Your task to perform on an android device: Search for "macbook" on target, select the first entry, and add it to the cart. Image 0: 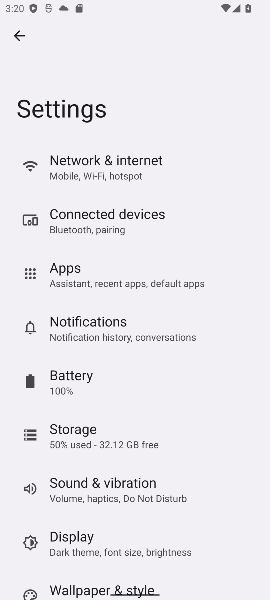
Step 0: press home button
Your task to perform on an android device: Search for "macbook" on target, select the first entry, and add it to the cart. Image 1: 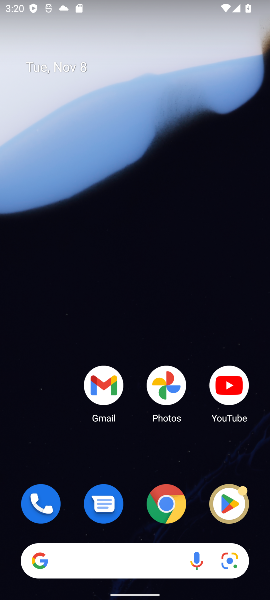
Step 1: drag from (195, 460) to (218, 54)
Your task to perform on an android device: Search for "macbook" on target, select the first entry, and add it to the cart. Image 2: 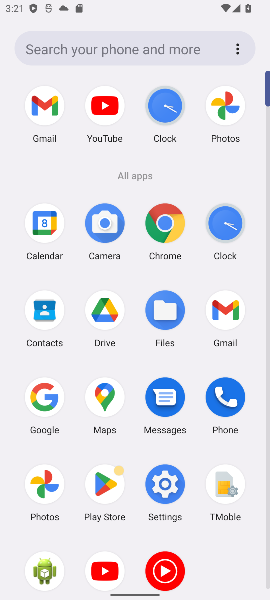
Step 2: click (159, 229)
Your task to perform on an android device: Search for "macbook" on target, select the first entry, and add it to the cart. Image 3: 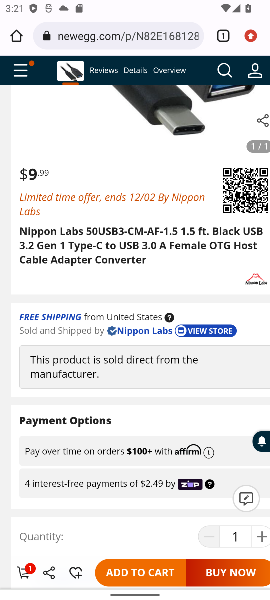
Step 3: click (133, 39)
Your task to perform on an android device: Search for "macbook" on target, select the first entry, and add it to the cart. Image 4: 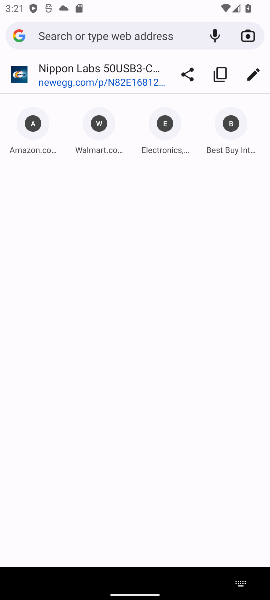
Step 4: type "macbook"
Your task to perform on an android device: Search for "macbook" on target, select the first entry, and add it to the cart. Image 5: 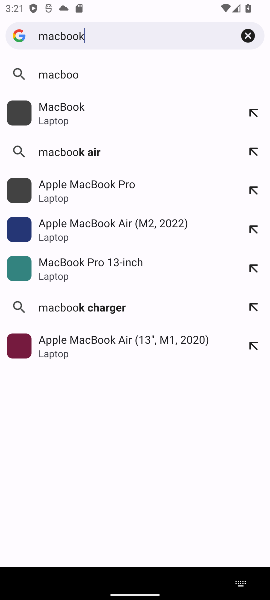
Step 5: press enter
Your task to perform on an android device: Search for "macbook" on target, select the first entry, and add it to the cart. Image 6: 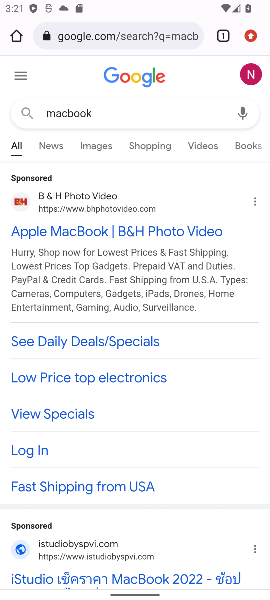
Step 6: click (146, 41)
Your task to perform on an android device: Search for "macbook" on target, select the first entry, and add it to the cart. Image 7: 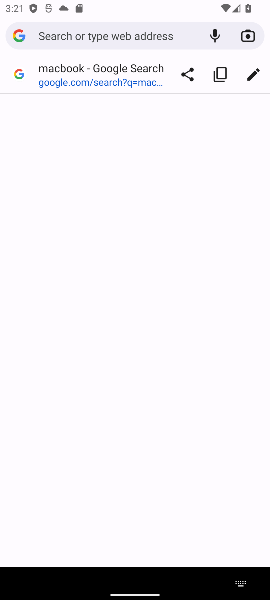
Step 7: type "target"
Your task to perform on an android device: Search for "macbook" on target, select the first entry, and add it to the cart. Image 8: 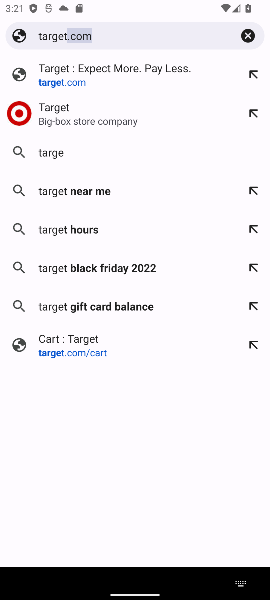
Step 8: press enter
Your task to perform on an android device: Search for "macbook" on target, select the first entry, and add it to the cart. Image 9: 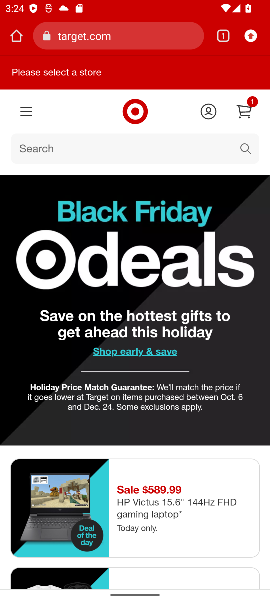
Step 9: click (103, 146)
Your task to perform on an android device: Search for "macbook" on target, select the first entry, and add it to the cart. Image 10: 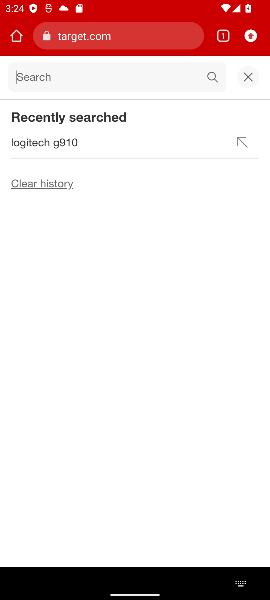
Step 10: type "macbook"
Your task to perform on an android device: Search for "macbook" on target, select the first entry, and add it to the cart. Image 11: 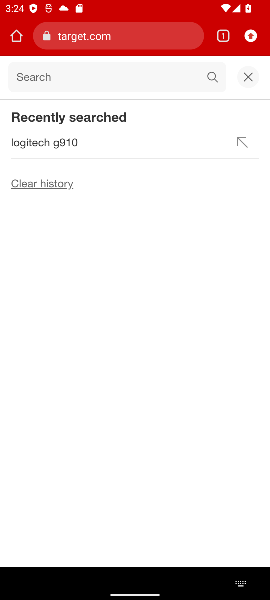
Step 11: press enter
Your task to perform on an android device: Search for "macbook" on target, select the first entry, and add it to the cart. Image 12: 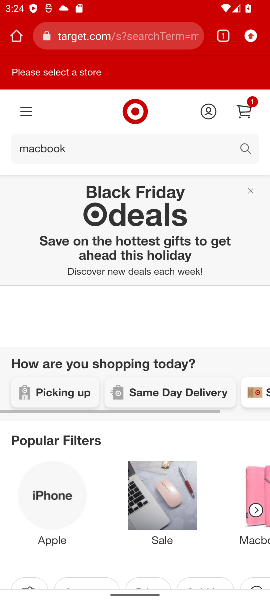
Step 12: drag from (119, 451) to (140, 185)
Your task to perform on an android device: Search for "macbook" on target, select the first entry, and add it to the cart. Image 13: 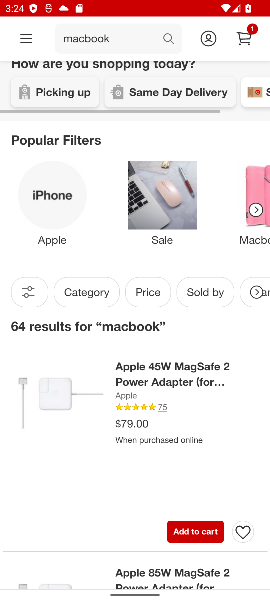
Step 13: drag from (161, 429) to (162, 223)
Your task to perform on an android device: Search for "macbook" on target, select the first entry, and add it to the cart. Image 14: 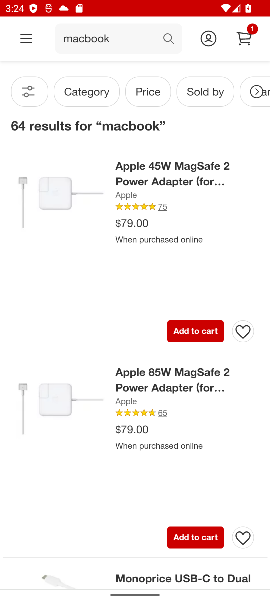
Step 14: click (197, 331)
Your task to perform on an android device: Search for "macbook" on target, select the first entry, and add it to the cart. Image 15: 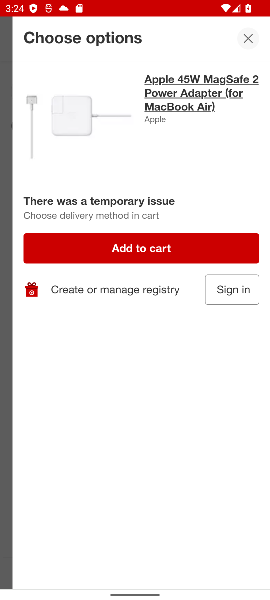
Step 15: click (150, 256)
Your task to perform on an android device: Search for "macbook" on target, select the first entry, and add it to the cart. Image 16: 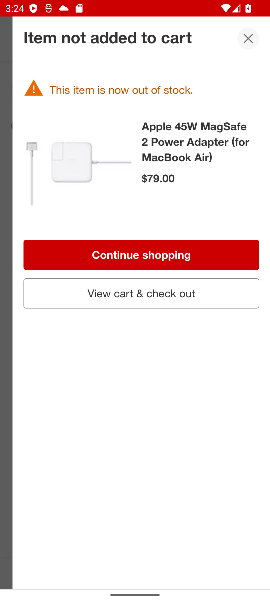
Step 16: click (149, 297)
Your task to perform on an android device: Search for "macbook" on target, select the first entry, and add it to the cart. Image 17: 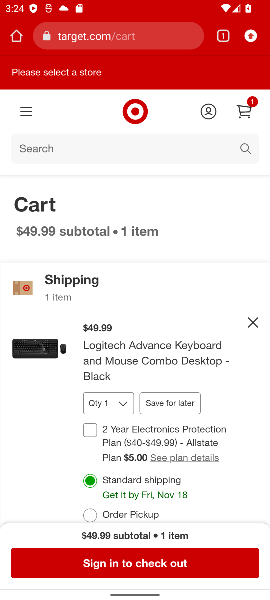
Step 17: task complete